Your task to perform on an android device: delete location history Image 0: 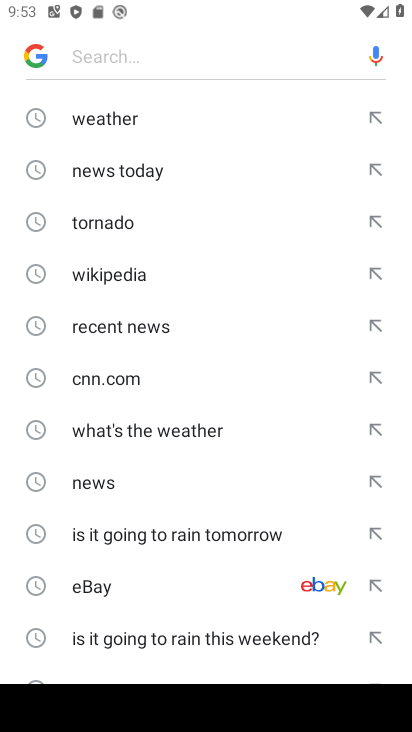
Step 0: drag from (232, 584) to (253, 205)
Your task to perform on an android device: delete location history Image 1: 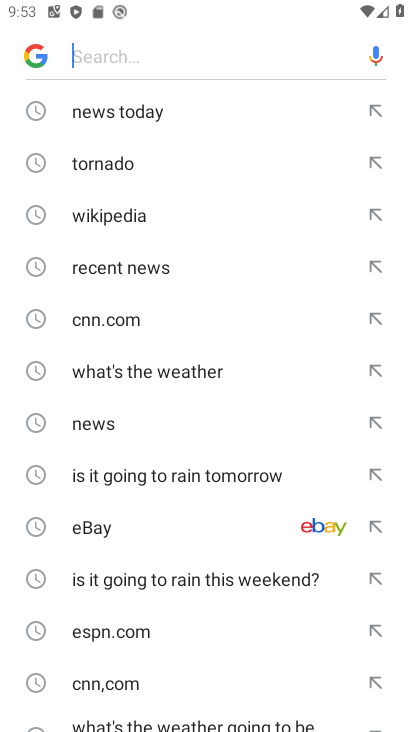
Step 1: drag from (178, 241) to (292, 703)
Your task to perform on an android device: delete location history Image 2: 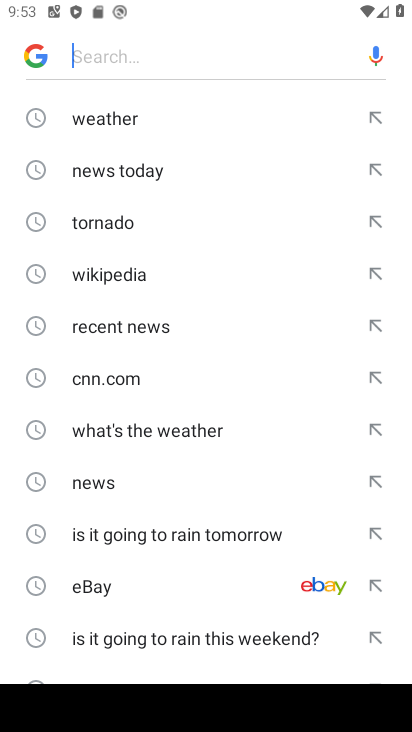
Step 2: drag from (253, 245) to (307, 597)
Your task to perform on an android device: delete location history Image 3: 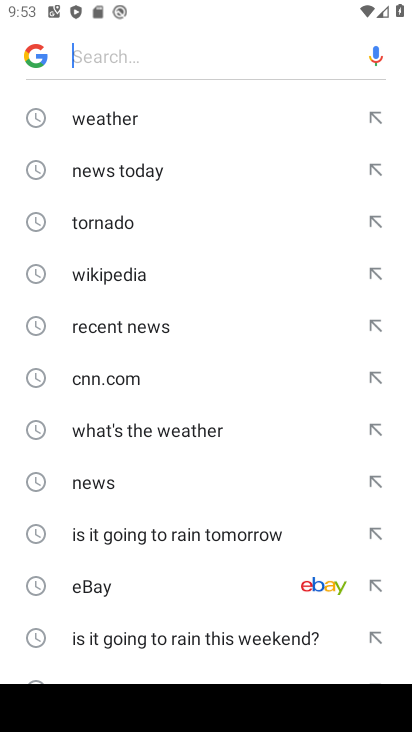
Step 3: press home button
Your task to perform on an android device: delete location history Image 4: 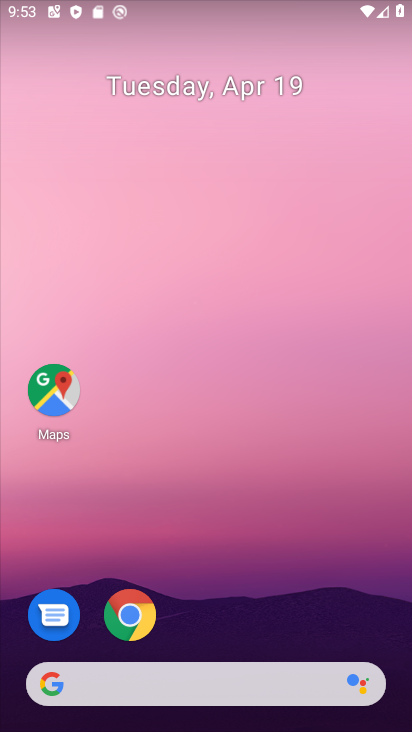
Step 4: drag from (221, 658) to (253, 92)
Your task to perform on an android device: delete location history Image 5: 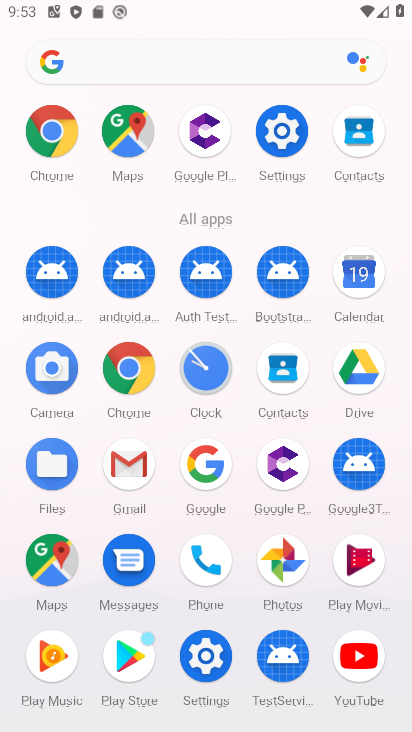
Step 5: drag from (249, 631) to (223, 304)
Your task to perform on an android device: delete location history Image 6: 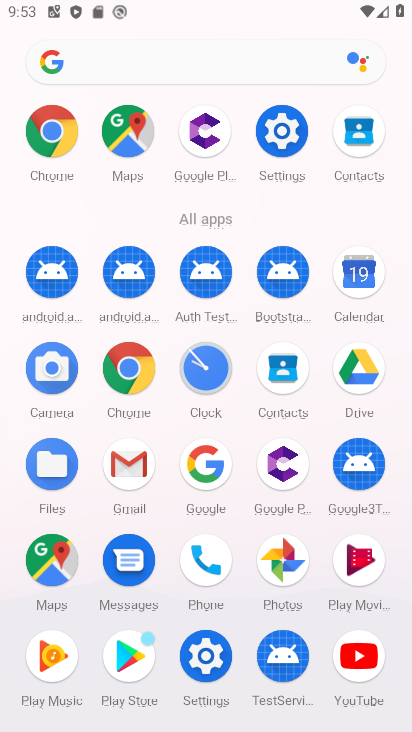
Step 6: click (210, 656)
Your task to perform on an android device: delete location history Image 7: 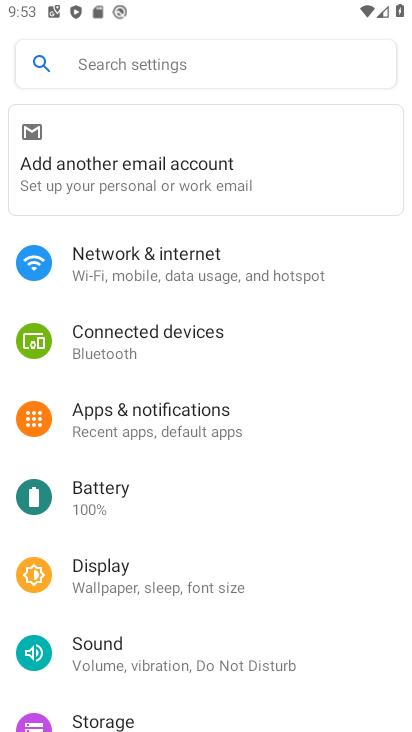
Step 7: drag from (211, 607) to (298, 280)
Your task to perform on an android device: delete location history Image 8: 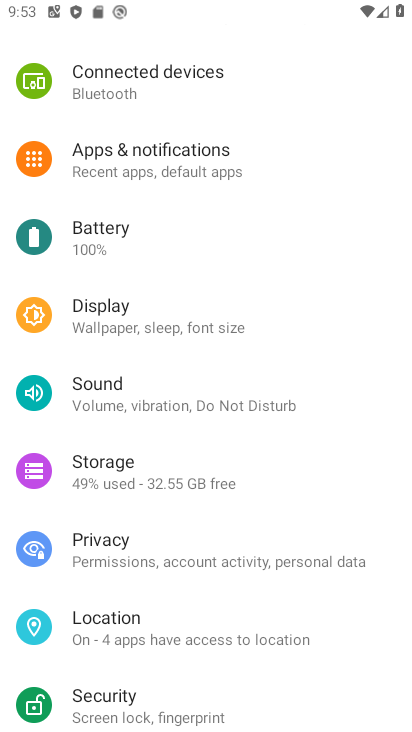
Step 8: click (179, 627)
Your task to perform on an android device: delete location history Image 9: 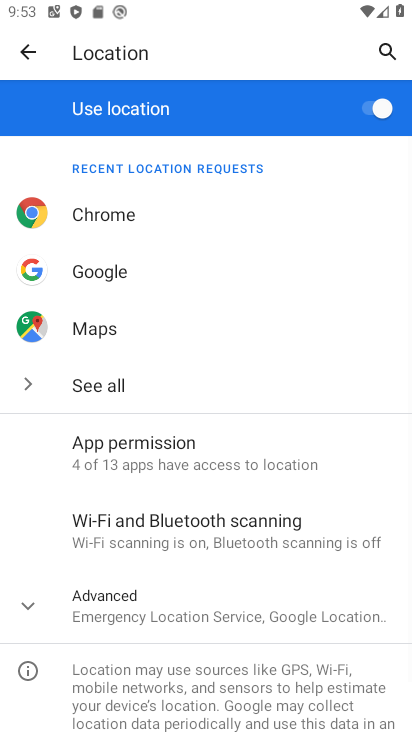
Step 9: click (164, 602)
Your task to perform on an android device: delete location history Image 10: 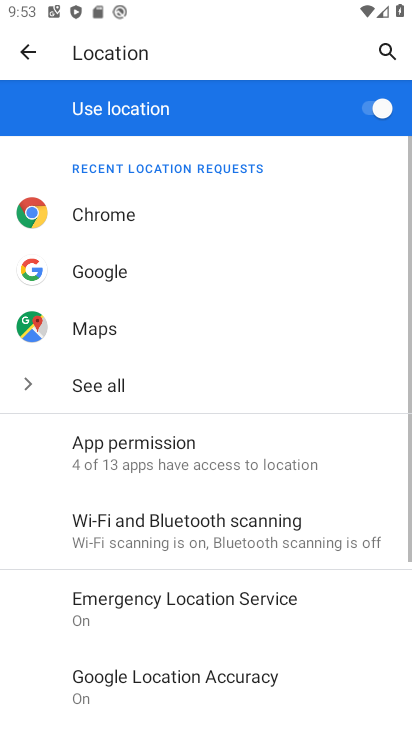
Step 10: drag from (164, 602) to (215, 31)
Your task to perform on an android device: delete location history Image 11: 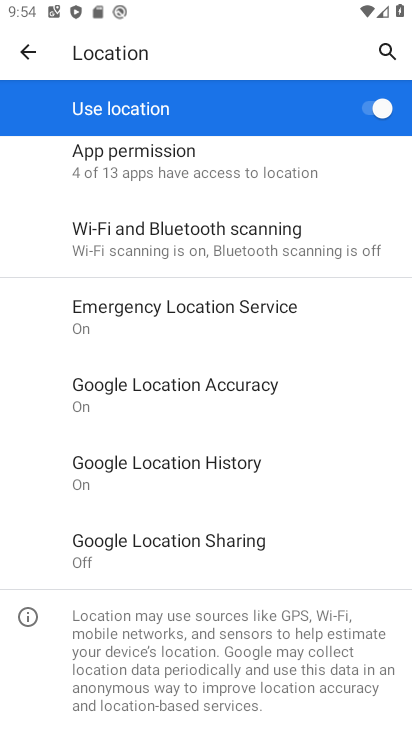
Step 11: click (250, 469)
Your task to perform on an android device: delete location history Image 12: 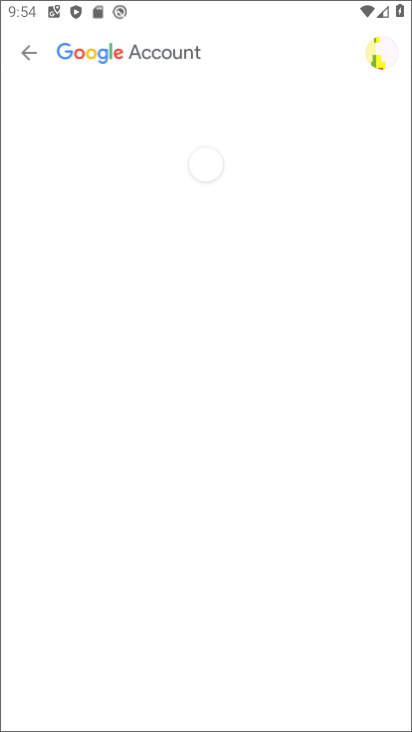
Step 12: drag from (204, 660) to (215, 217)
Your task to perform on an android device: delete location history Image 13: 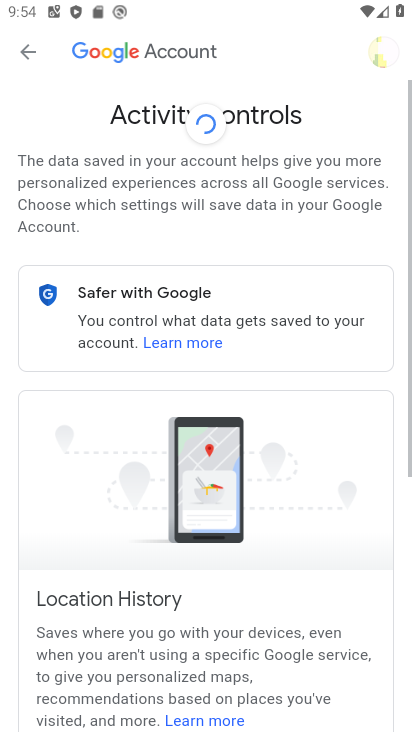
Step 13: drag from (248, 603) to (248, 320)
Your task to perform on an android device: delete location history Image 14: 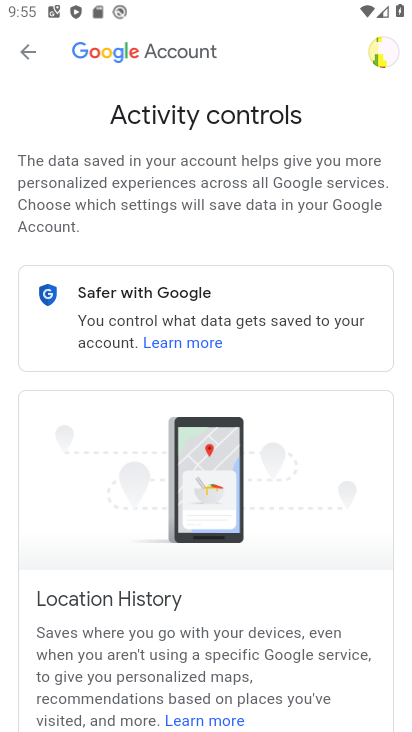
Step 14: click (366, 234)
Your task to perform on an android device: delete location history Image 15: 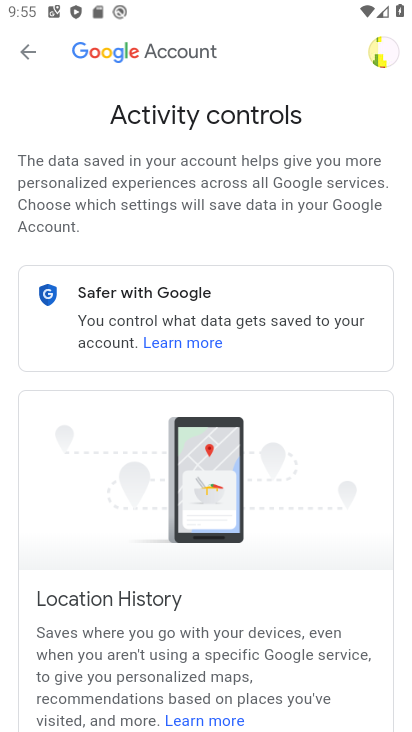
Step 15: drag from (337, 551) to (43, 19)
Your task to perform on an android device: delete location history Image 16: 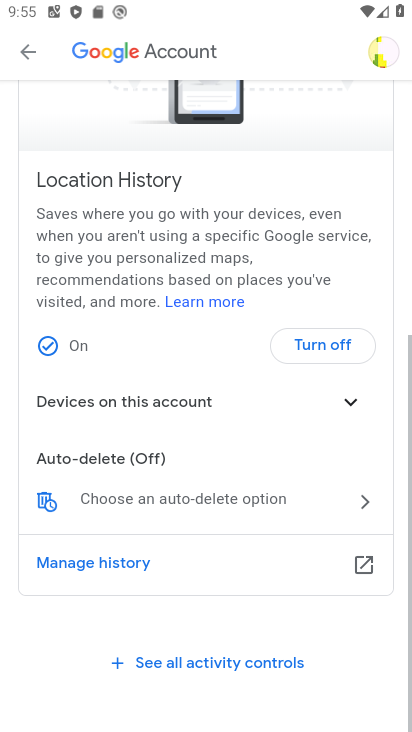
Step 16: drag from (243, 510) to (272, 167)
Your task to perform on an android device: delete location history Image 17: 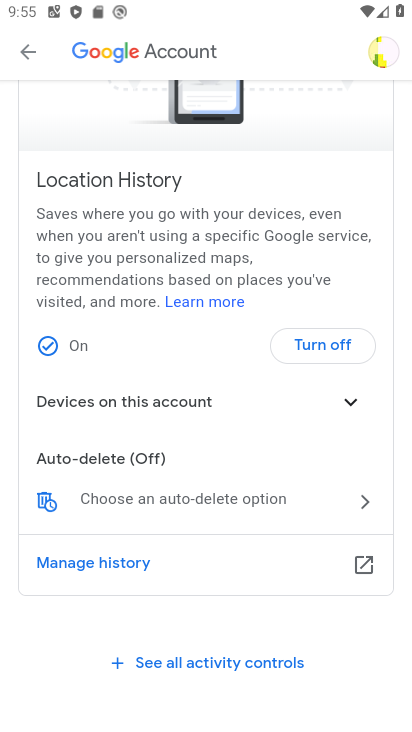
Step 17: click (37, 500)
Your task to perform on an android device: delete location history Image 18: 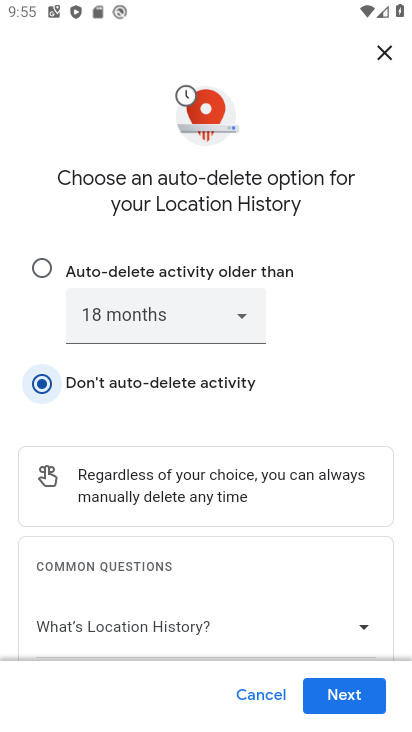
Step 18: drag from (203, 544) to (319, 66)
Your task to perform on an android device: delete location history Image 19: 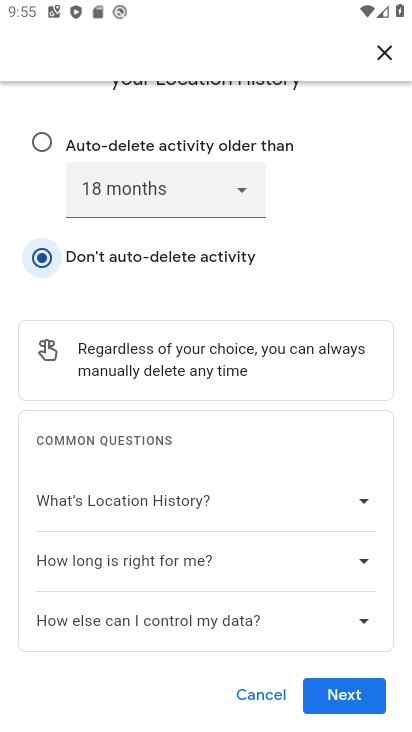
Step 19: drag from (248, 448) to (330, 122)
Your task to perform on an android device: delete location history Image 20: 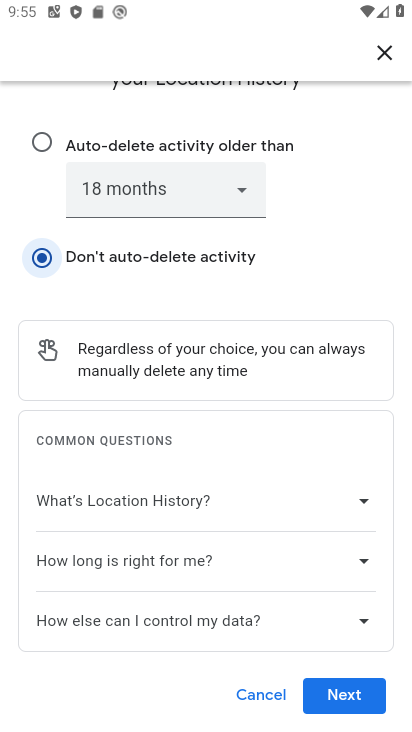
Step 20: click (341, 690)
Your task to perform on an android device: delete location history Image 21: 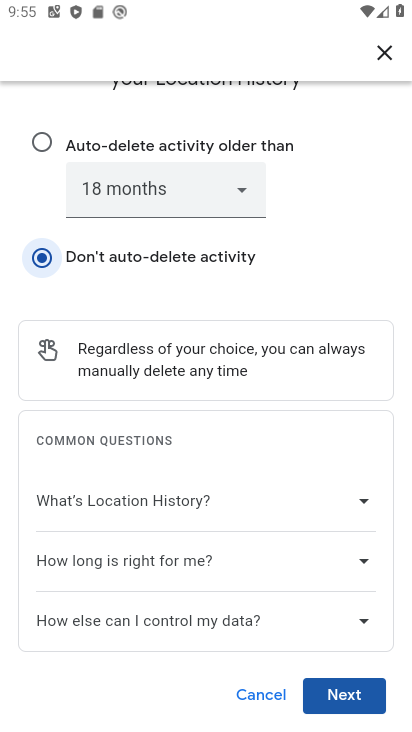
Step 21: click (341, 692)
Your task to perform on an android device: delete location history Image 22: 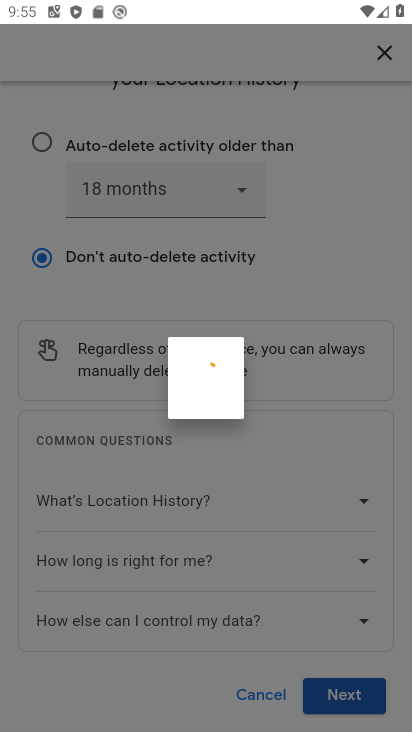
Step 22: click (344, 695)
Your task to perform on an android device: delete location history Image 23: 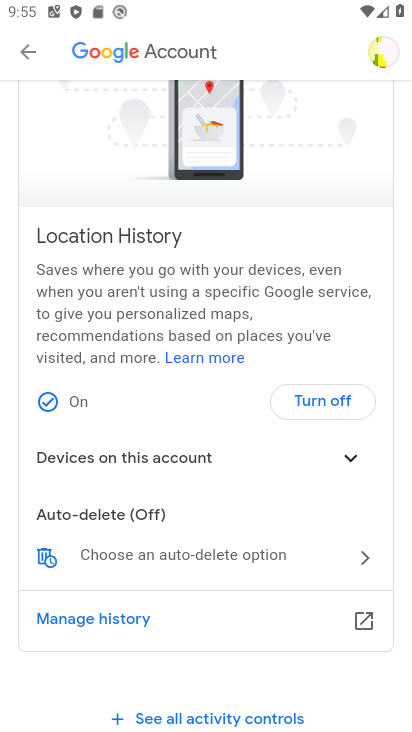
Step 23: task complete